Your task to perform on an android device: Open Amazon Image 0: 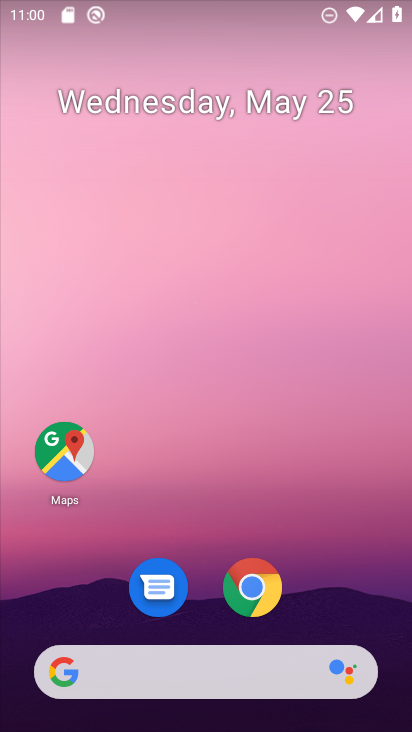
Step 0: drag from (378, 597) to (254, 3)
Your task to perform on an android device: Open Amazon Image 1: 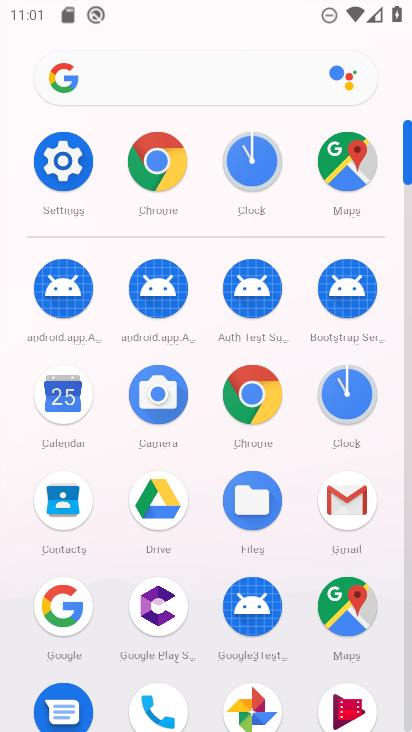
Step 1: click (157, 165)
Your task to perform on an android device: Open Amazon Image 2: 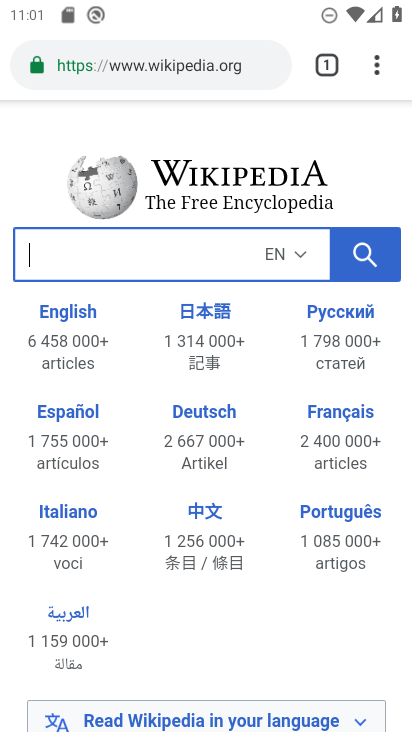
Step 2: click (156, 59)
Your task to perform on an android device: Open Amazon Image 3: 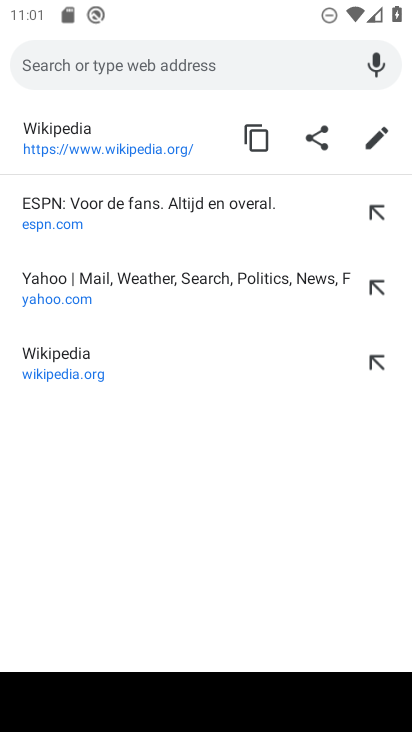
Step 3: type " Amazon"
Your task to perform on an android device: Open Amazon Image 4: 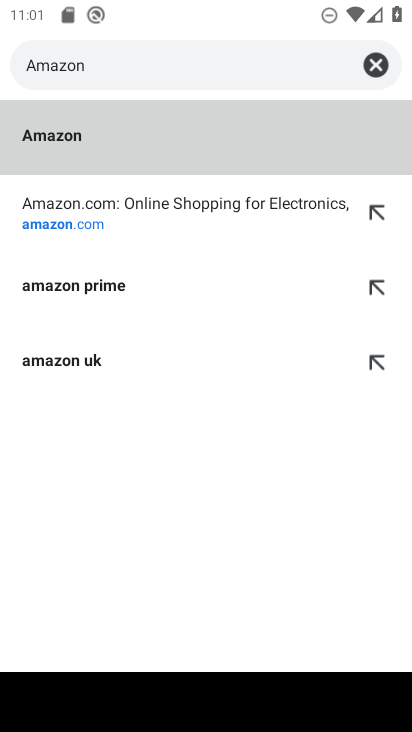
Step 4: click (100, 197)
Your task to perform on an android device: Open Amazon Image 5: 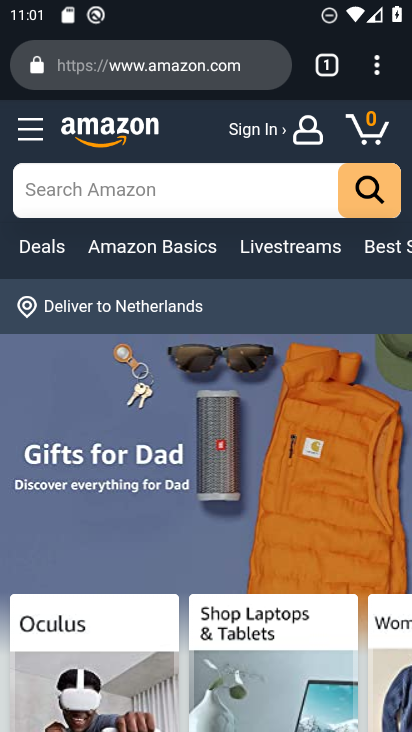
Step 5: task complete